Your task to perform on an android device: Go to location settings Image 0: 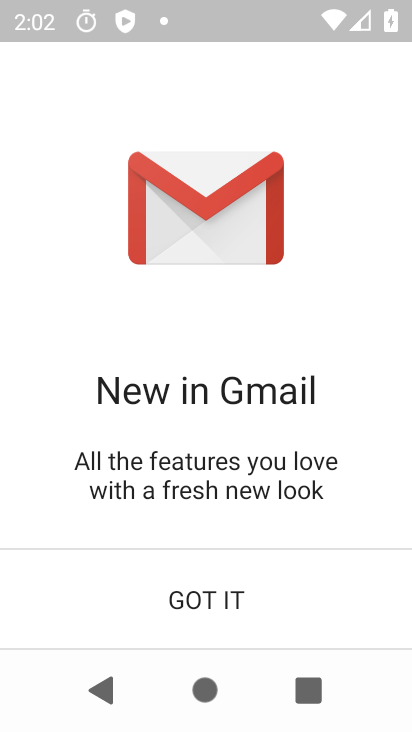
Step 0: press home button
Your task to perform on an android device: Go to location settings Image 1: 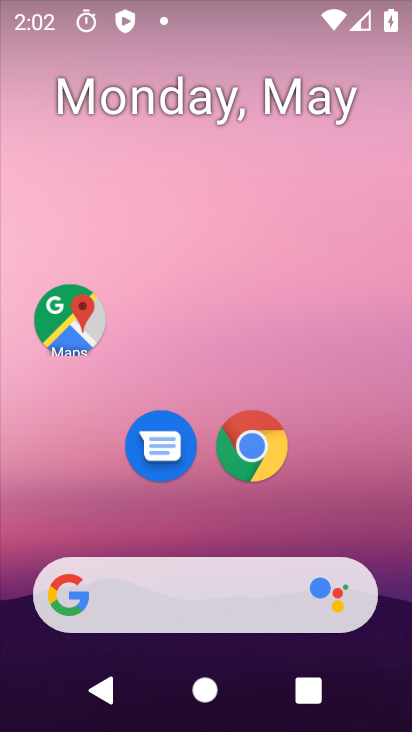
Step 1: drag from (226, 627) to (241, 155)
Your task to perform on an android device: Go to location settings Image 2: 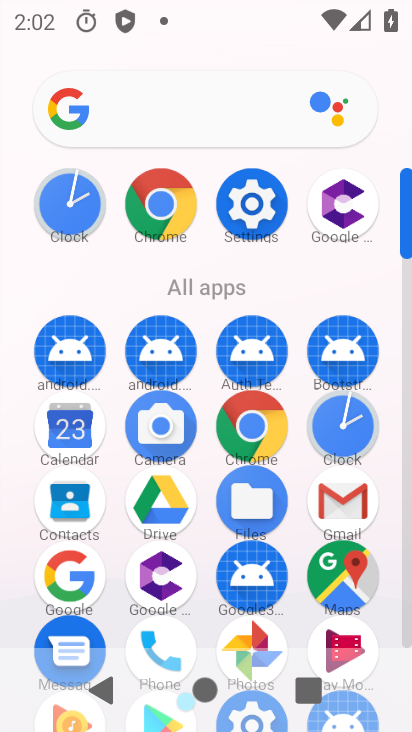
Step 2: click (224, 223)
Your task to perform on an android device: Go to location settings Image 3: 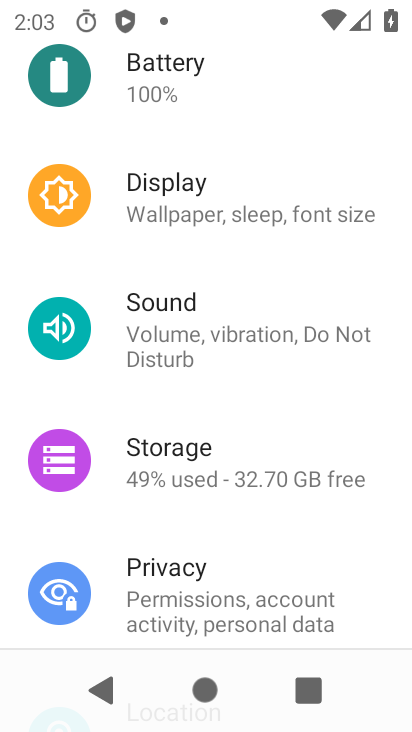
Step 3: drag from (173, 483) to (176, 137)
Your task to perform on an android device: Go to location settings Image 4: 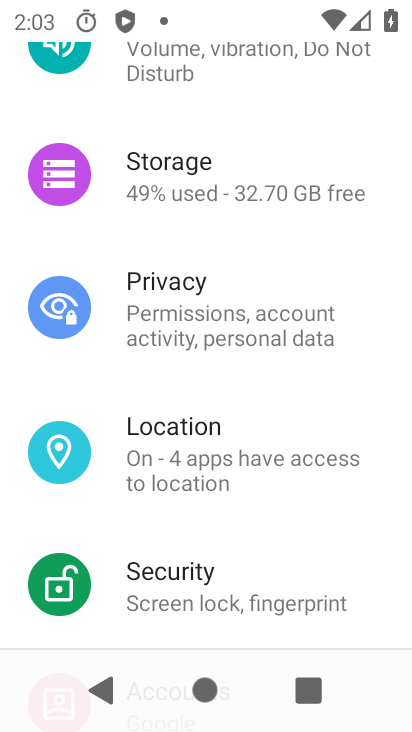
Step 4: click (171, 467)
Your task to perform on an android device: Go to location settings Image 5: 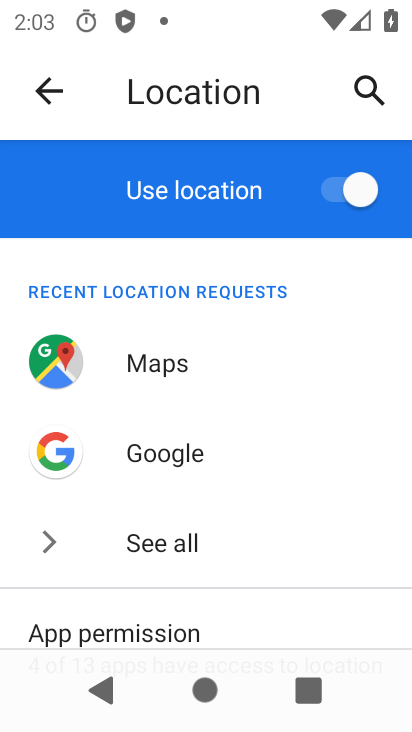
Step 5: task complete